Your task to perform on an android device: Play the last video I watched on Youtube Image 0: 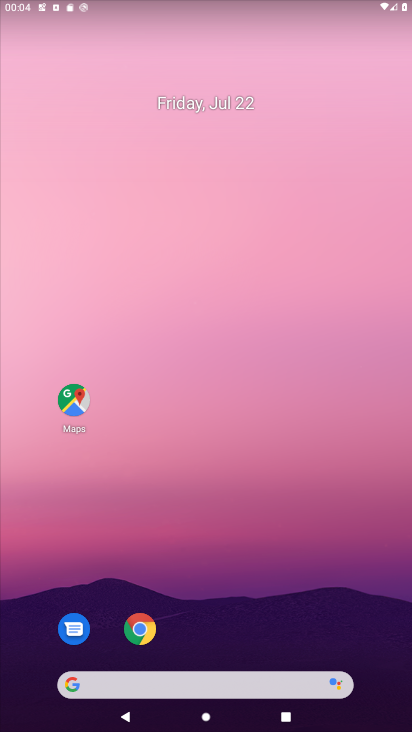
Step 0: drag from (293, 588) to (295, 93)
Your task to perform on an android device: Play the last video I watched on Youtube Image 1: 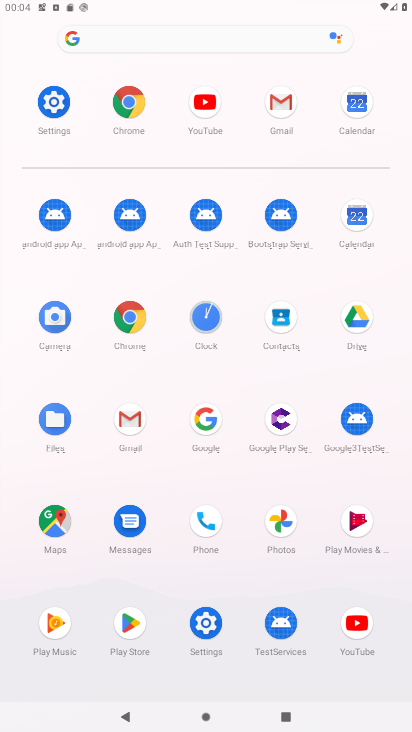
Step 1: click (353, 623)
Your task to perform on an android device: Play the last video I watched on Youtube Image 2: 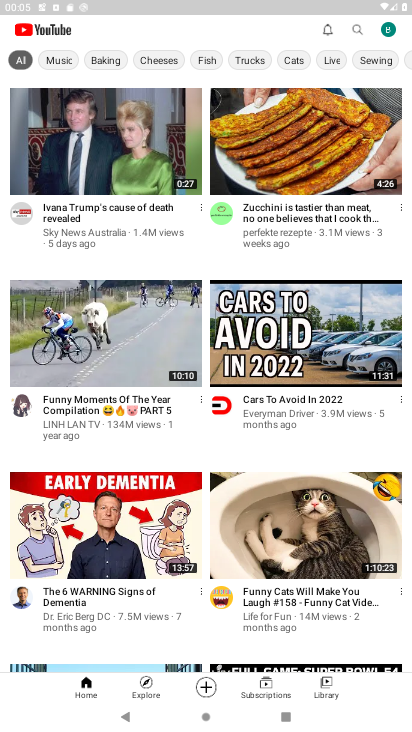
Step 2: click (324, 696)
Your task to perform on an android device: Play the last video I watched on Youtube Image 3: 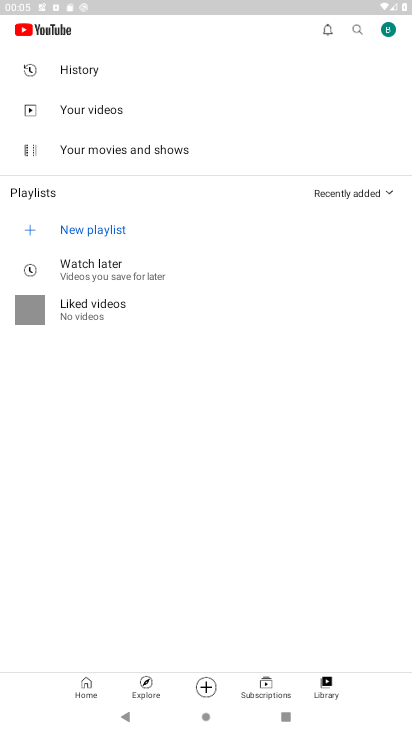
Step 3: click (130, 79)
Your task to perform on an android device: Play the last video I watched on Youtube Image 4: 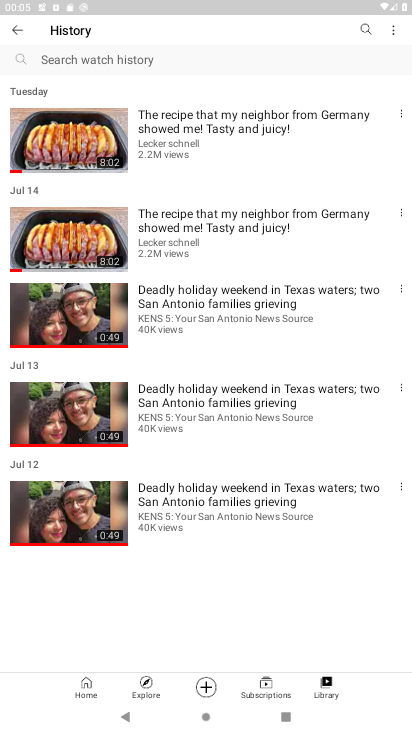
Step 4: click (200, 147)
Your task to perform on an android device: Play the last video I watched on Youtube Image 5: 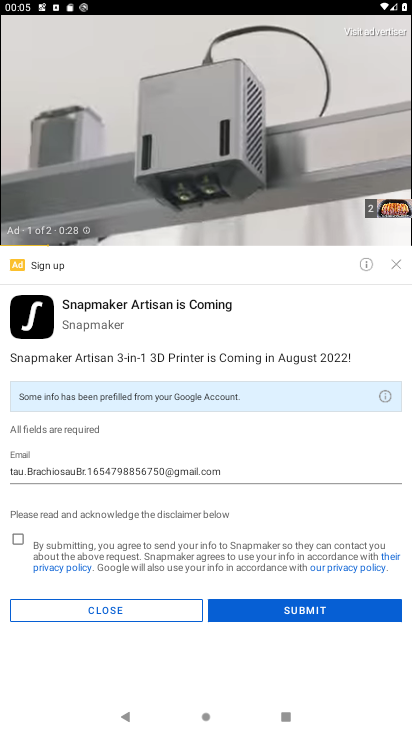
Step 5: click (398, 271)
Your task to perform on an android device: Play the last video I watched on Youtube Image 6: 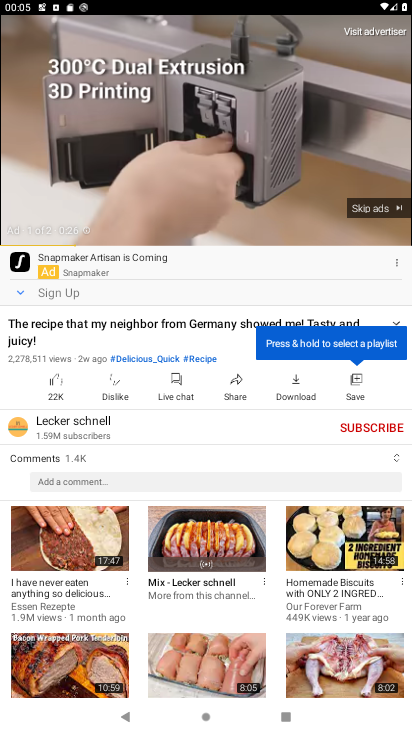
Step 6: click (385, 207)
Your task to perform on an android device: Play the last video I watched on Youtube Image 7: 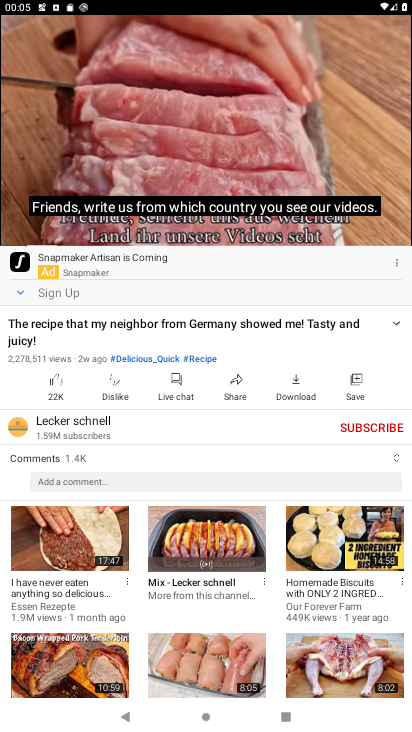
Step 7: task complete